Your task to perform on an android device: turn off data saver in the chrome app Image 0: 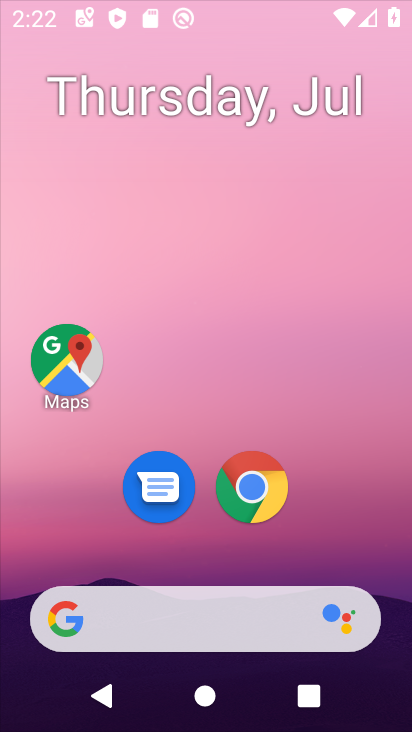
Step 0: drag from (352, 315) to (349, 147)
Your task to perform on an android device: turn off data saver in the chrome app Image 1: 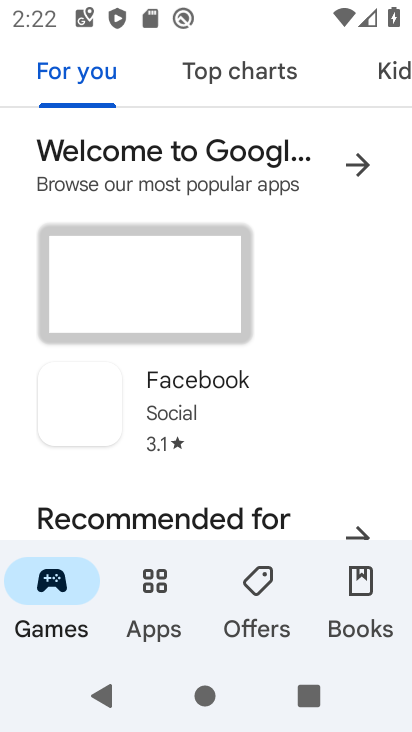
Step 1: press home button
Your task to perform on an android device: turn off data saver in the chrome app Image 2: 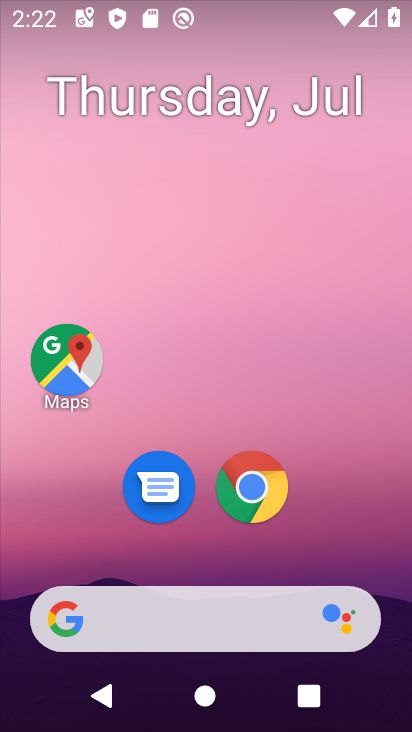
Step 2: drag from (365, 552) to (377, 157)
Your task to perform on an android device: turn off data saver in the chrome app Image 3: 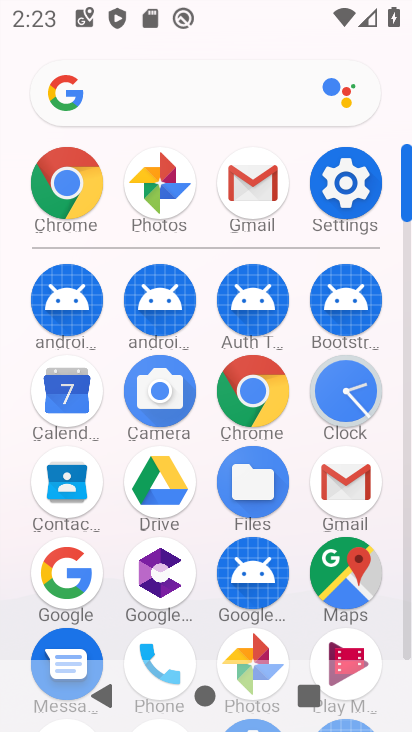
Step 3: click (259, 399)
Your task to perform on an android device: turn off data saver in the chrome app Image 4: 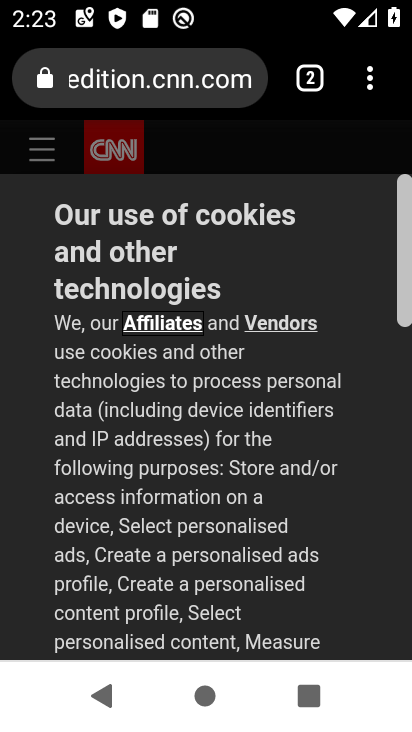
Step 4: click (370, 93)
Your task to perform on an android device: turn off data saver in the chrome app Image 5: 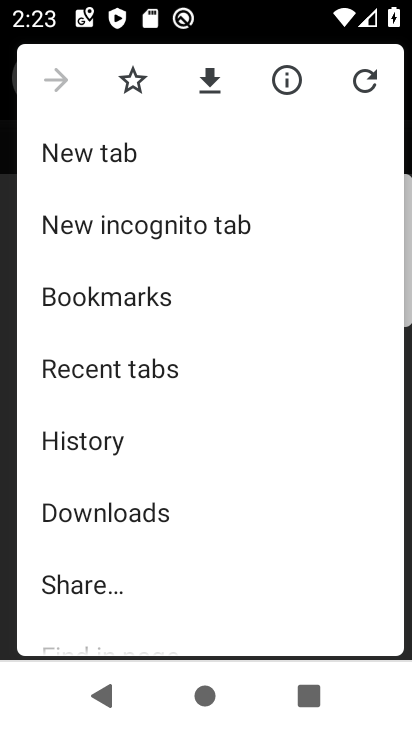
Step 5: drag from (331, 327) to (333, 245)
Your task to perform on an android device: turn off data saver in the chrome app Image 6: 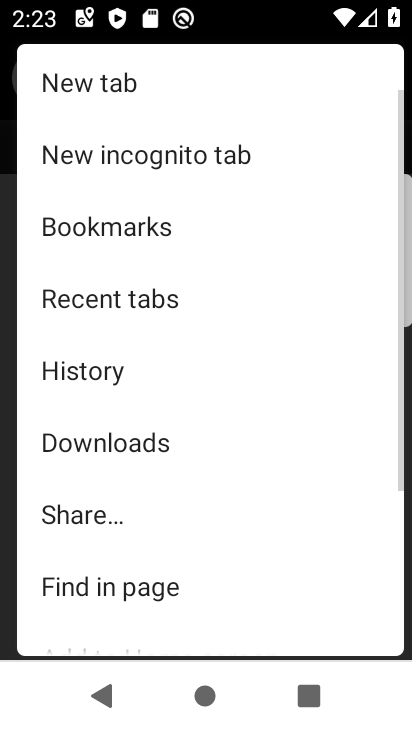
Step 6: drag from (325, 341) to (325, 237)
Your task to perform on an android device: turn off data saver in the chrome app Image 7: 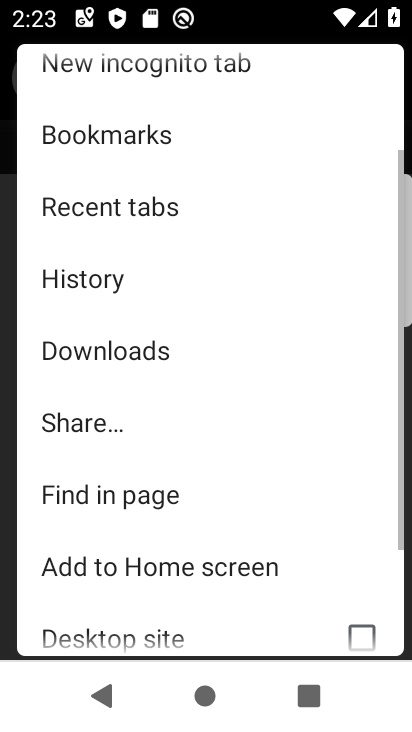
Step 7: drag from (329, 354) to (331, 284)
Your task to perform on an android device: turn off data saver in the chrome app Image 8: 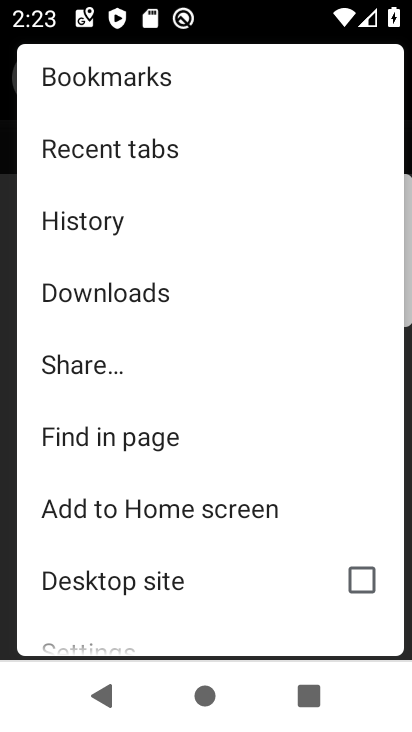
Step 8: drag from (332, 394) to (333, 292)
Your task to perform on an android device: turn off data saver in the chrome app Image 9: 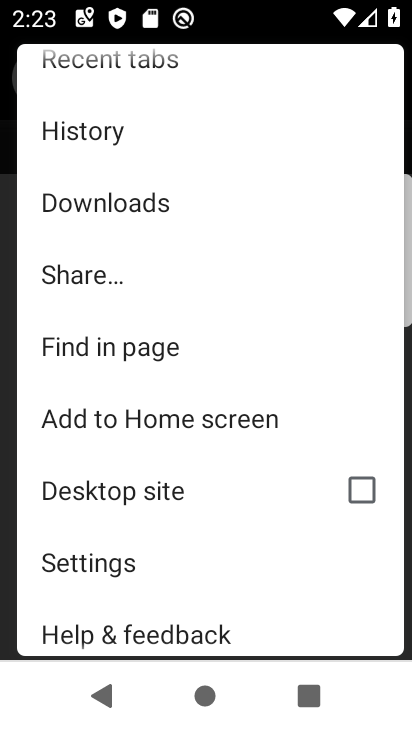
Step 9: drag from (325, 401) to (325, 314)
Your task to perform on an android device: turn off data saver in the chrome app Image 10: 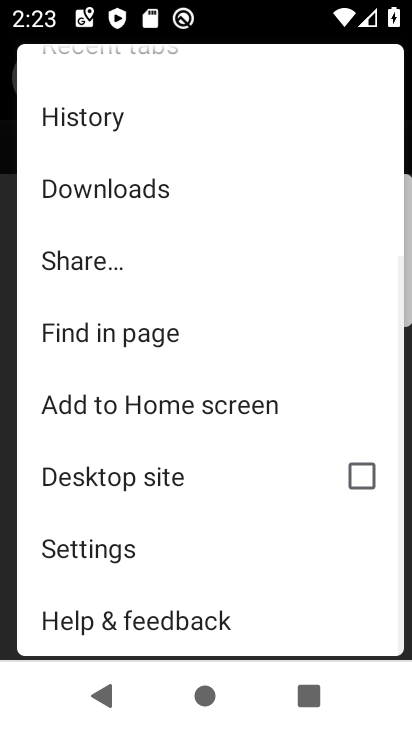
Step 10: click (186, 558)
Your task to perform on an android device: turn off data saver in the chrome app Image 11: 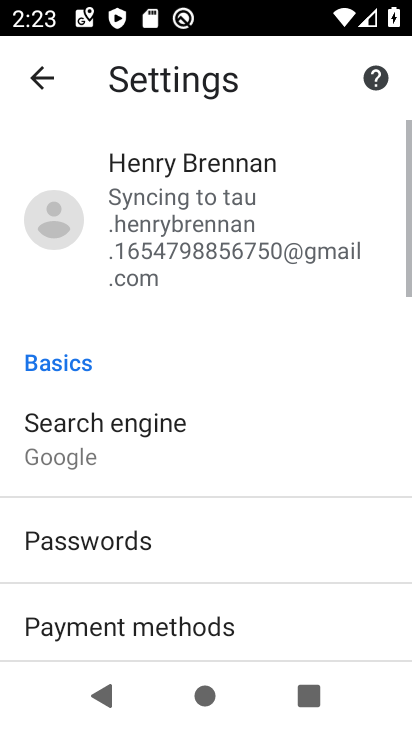
Step 11: drag from (367, 475) to (364, 381)
Your task to perform on an android device: turn off data saver in the chrome app Image 12: 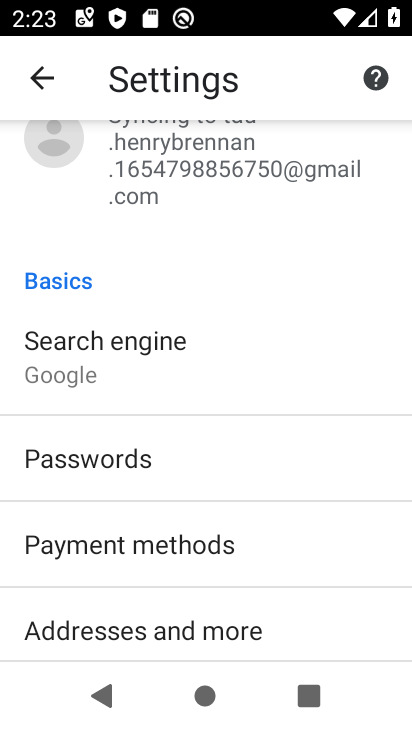
Step 12: drag from (355, 469) to (357, 374)
Your task to perform on an android device: turn off data saver in the chrome app Image 13: 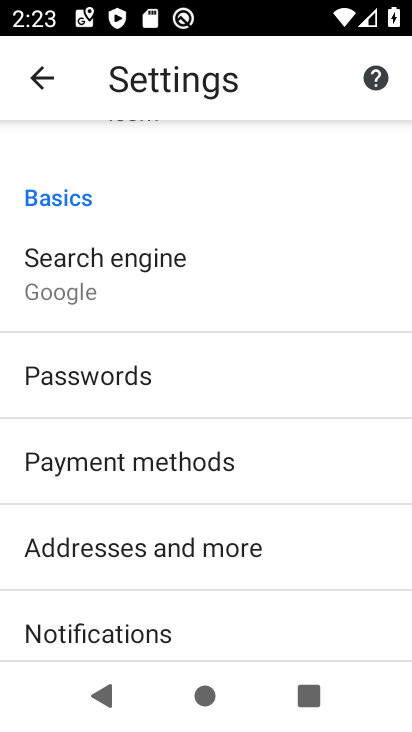
Step 13: drag from (369, 489) to (365, 389)
Your task to perform on an android device: turn off data saver in the chrome app Image 14: 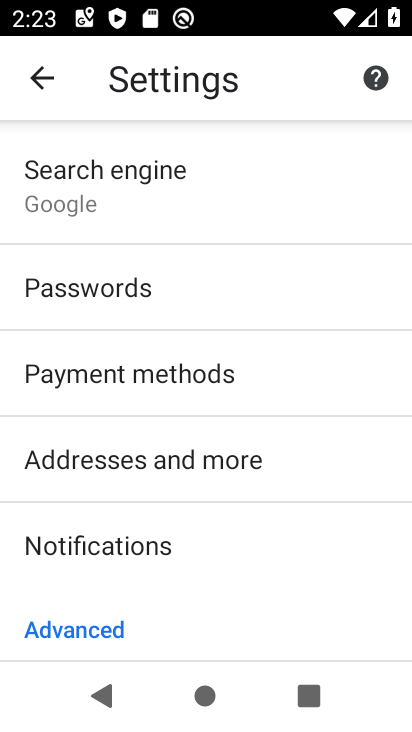
Step 14: drag from (354, 485) to (354, 392)
Your task to perform on an android device: turn off data saver in the chrome app Image 15: 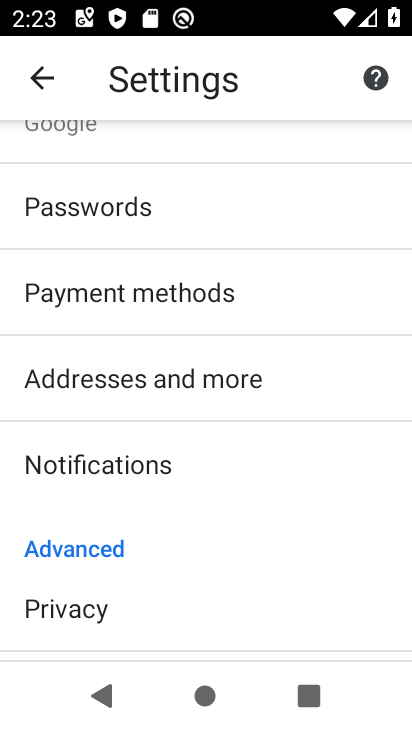
Step 15: drag from (352, 481) to (349, 381)
Your task to perform on an android device: turn off data saver in the chrome app Image 16: 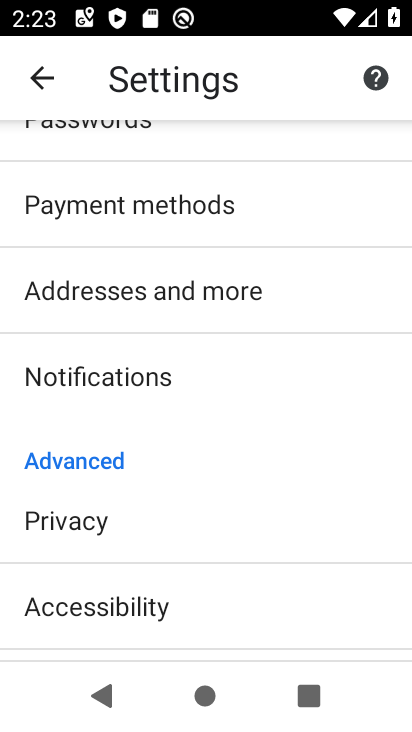
Step 16: drag from (341, 448) to (341, 352)
Your task to perform on an android device: turn off data saver in the chrome app Image 17: 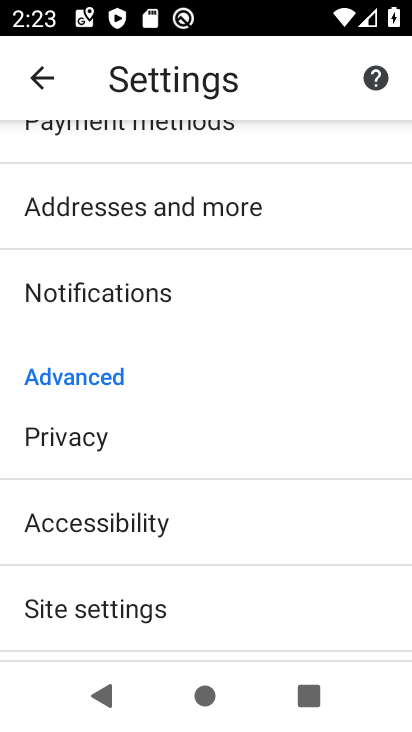
Step 17: drag from (334, 491) to (328, 377)
Your task to perform on an android device: turn off data saver in the chrome app Image 18: 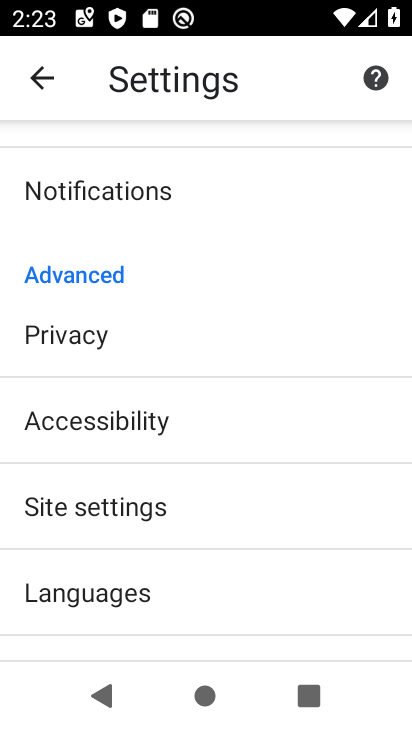
Step 18: drag from (316, 493) to (310, 395)
Your task to perform on an android device: turn off data saver in the chrome app Image 19: 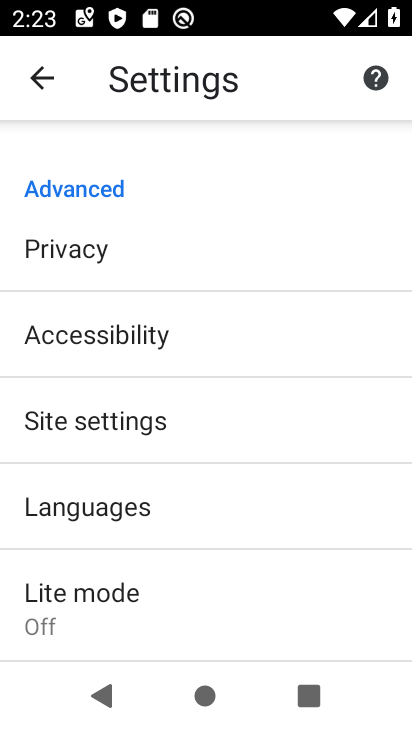
Step 19: drag from (305, 512) to (312, 295)
Your task to perform on an android device: turn off data saver in the chrome app Image 20: 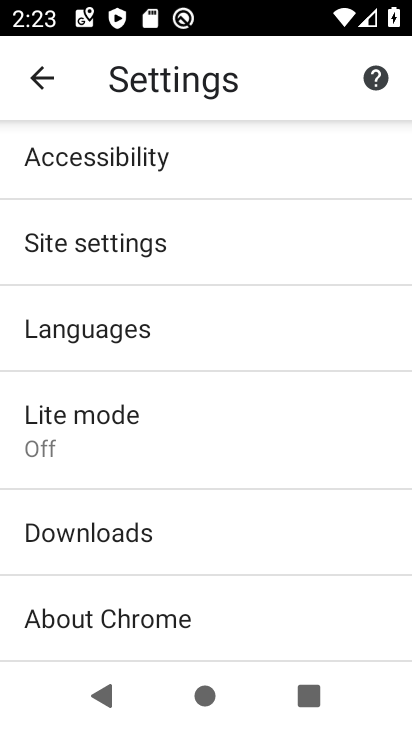
Step 20: click (249, 434)
Your task to perform on an android device: turn off data saver in the chrome app Image 21: 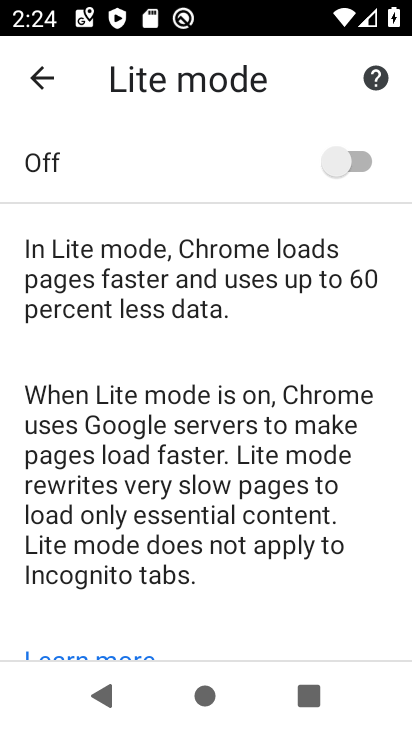
Step 21: task complete